Your task to perform on an android device: Go to eBay Image 0: 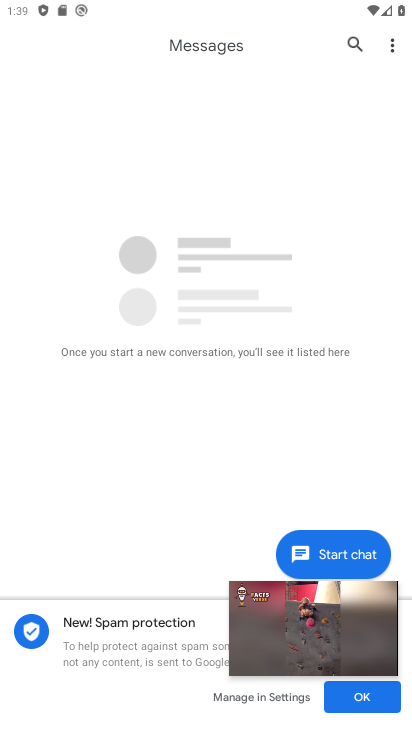
Step 0: click (324, 618)
Your task to perform on an android device: Go to eBay Image 1: 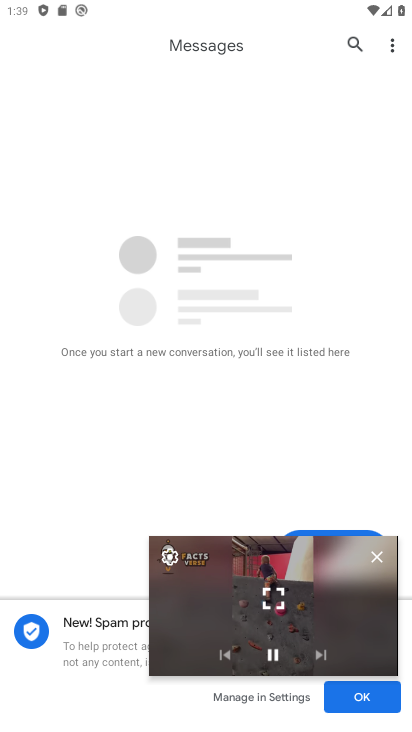
Step 1: click (376, 552)
Your task to perform on an android device: Go to eBay Image 2: 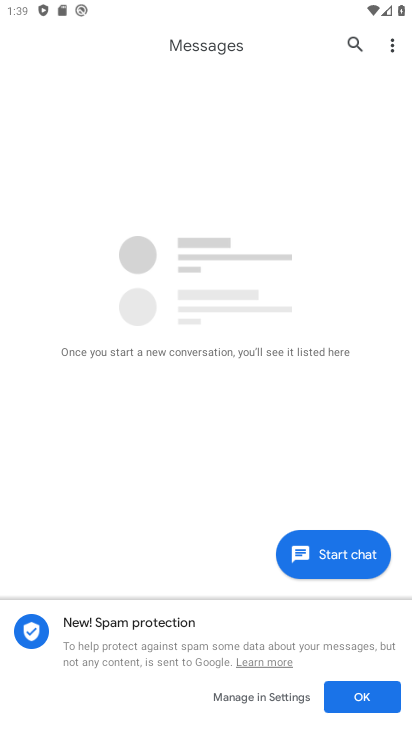
Step 2: press back button
Your task to perform on an android device: Go to eBay Image 3: 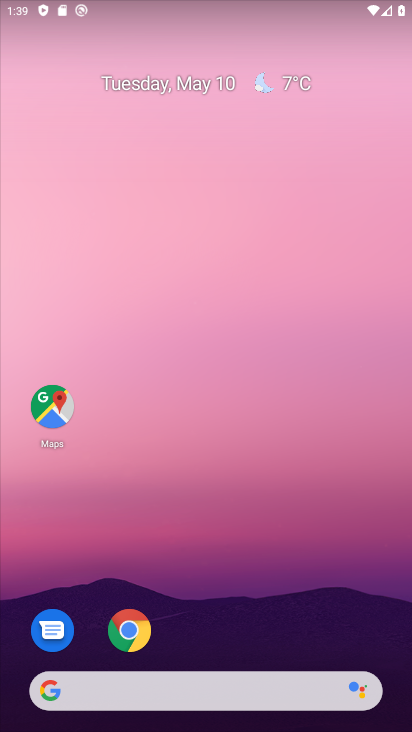
Step 3: drag from (287, 580) to (194, 4)
Your task to perform on an android device: Go to eBay Image 4: 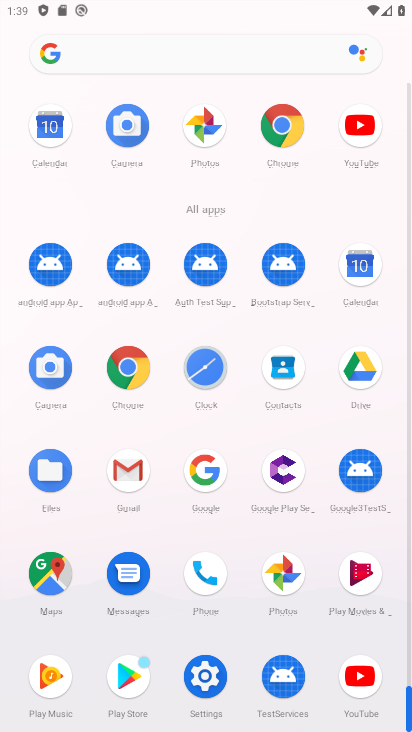
Step 4: click (124, 368)
Your task to perform on an android device: Go to eBay Image 5: 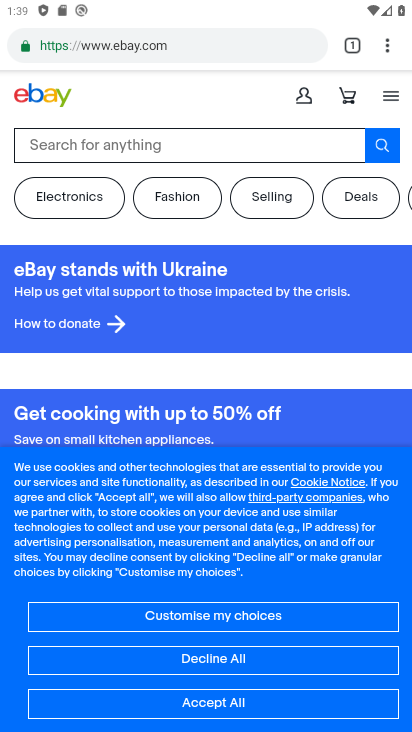
Step 5: task complete